Your task to perform on an android device: Is it going to rain tomorrow? Image 0: 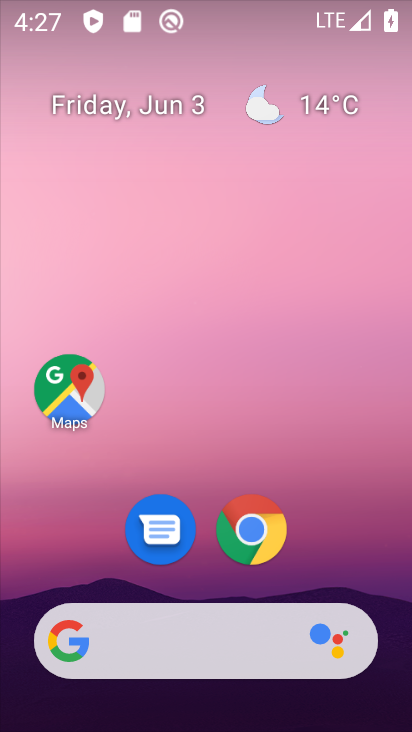
Step 0: click (324, 105)
Your task to perform on an android device: Is it going to rain tomorrow? Image 1: 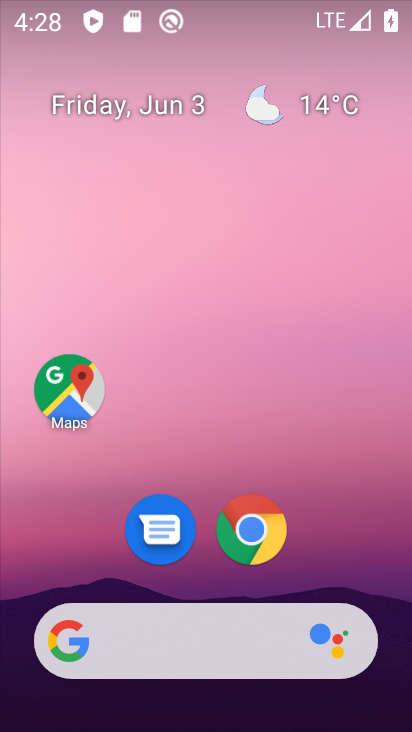
Step 1: click (319, 96)
Your task to perform on an android device: Is it going to rain tomorrow? Image 2: 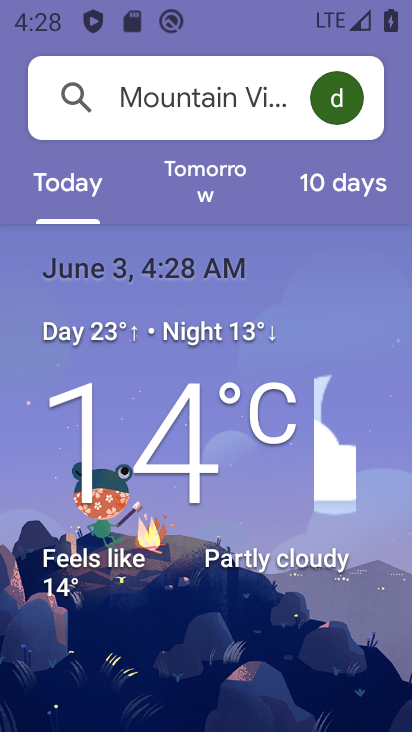
Step 2: click (199, 189)
Your task to perform on an android device: Is it going to rain tomorrow? Image 3: 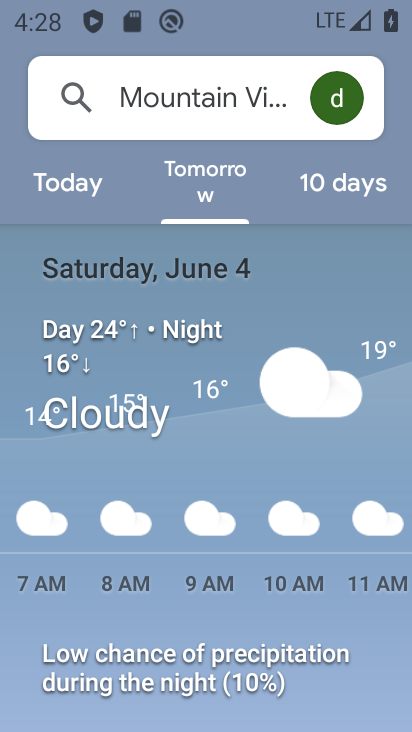
Step 3: drag from (383, 526) to (29, 523)
Your task to perform on an android device: Is it going to rain tomorrow? Image 4: 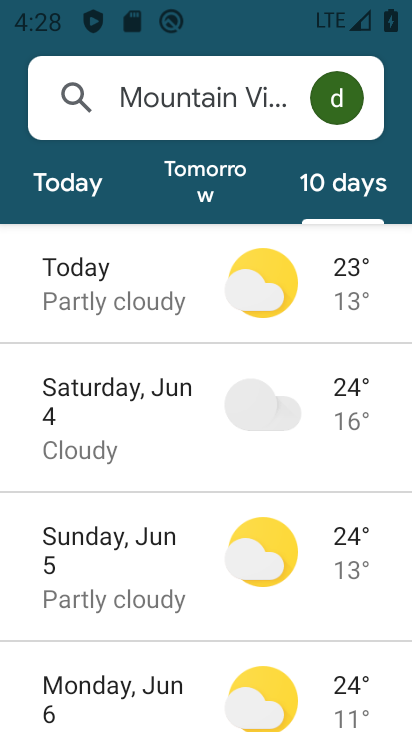
Step 4: click (198, 174)
Your task to perform on an android device: Is it going to rain tomorrow? Image 5: 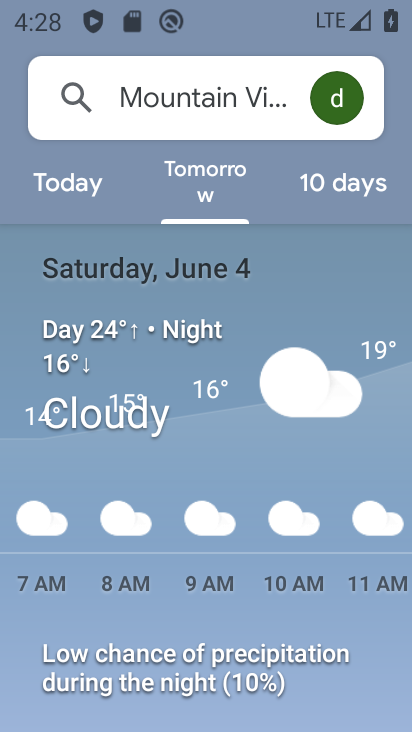
Step 5: task complete